Your task to perform on an android device: Open my contact list Image 0: 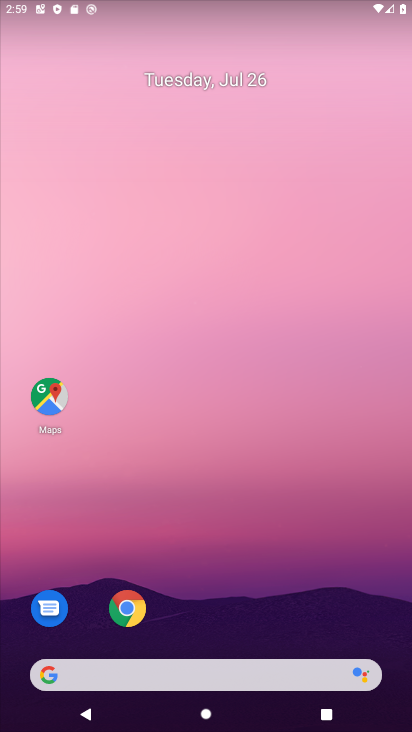
Step 0: drag from (329, 546) to (292, 174)
Your task to perform on an android device: Open my contact list Image 1: 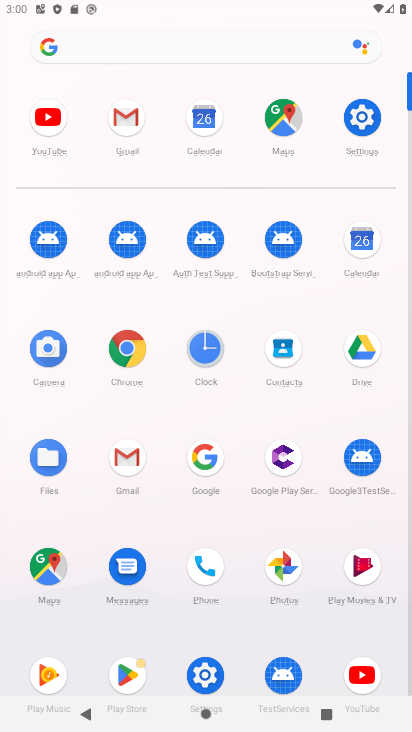
Step 1: click (280, 356)
Your task to perform on an android device: Open my contact list Image 2: 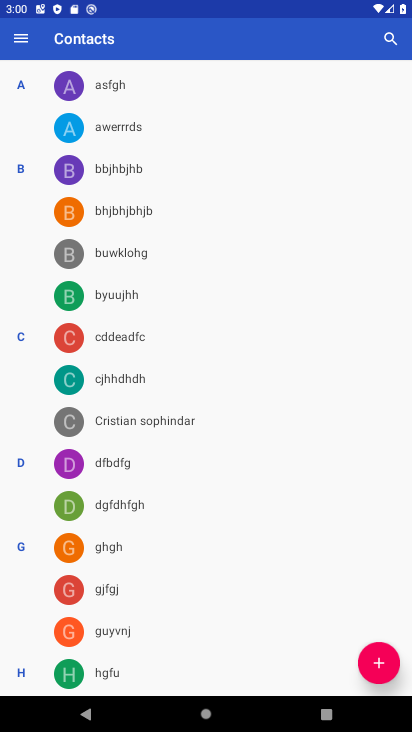
Step 2: task complete